Your task to perform on an android device: What's on my calendar tomorrow? Image 0: 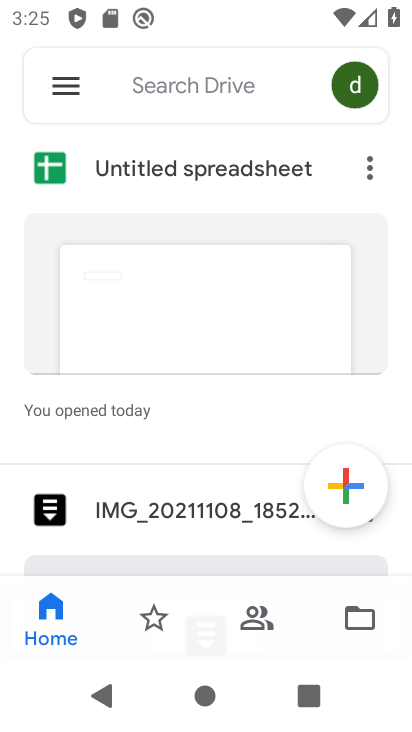
Step 0: click (250, 469)
Your task to perform on an android device: What's on my calendar tomorrow? Image 1: 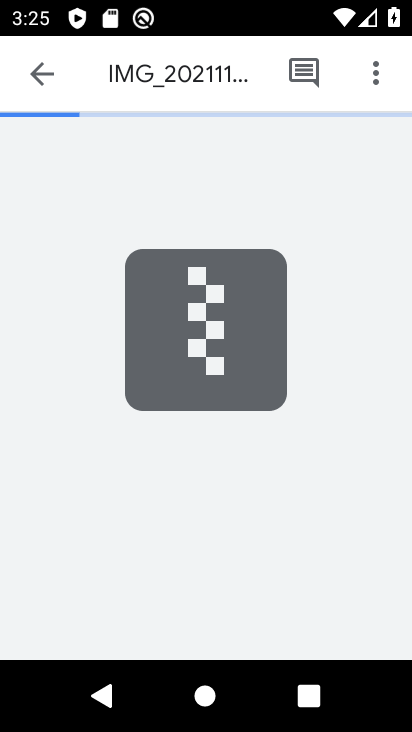
Step 1: press home button
Your task to perform on an android device: What's on my calendar tomorrow? Image 2: 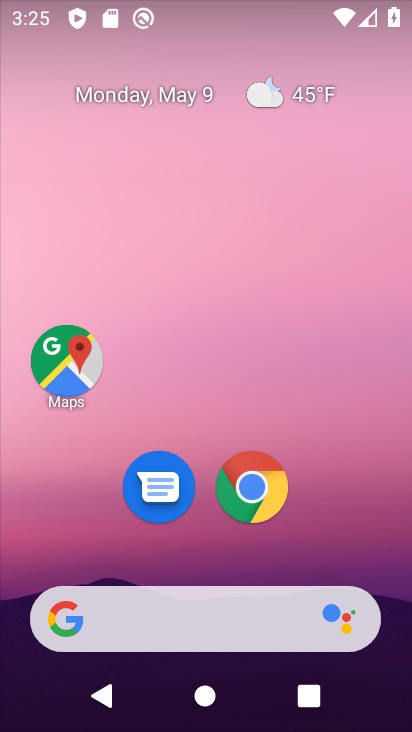
Step 2: drag from (207, 595) to (203, 232)
Your task to perform on an android device: What's on my calendar tomorrow? Image 3: 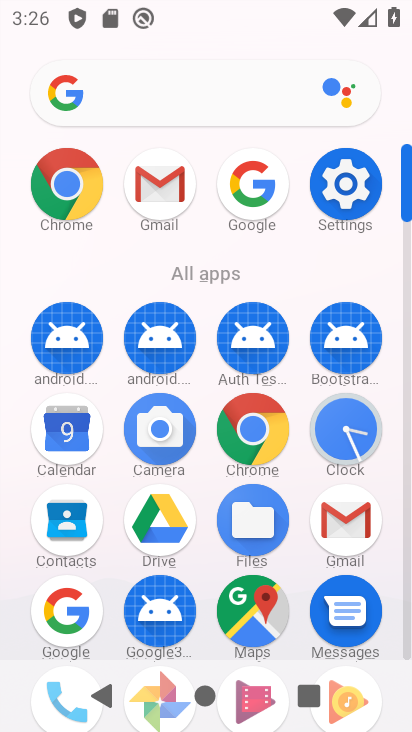
Step 3: click (53, 437)
Your task to perform on an android device: What's on my calendar tomorrow? Image 4: 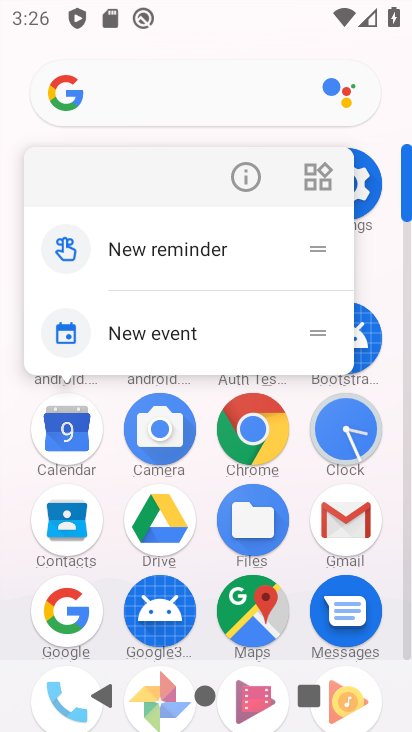
Step 4: click (52, 436)
Your task to perform on an android device: What's on my calendar tomorrow? Image 5: 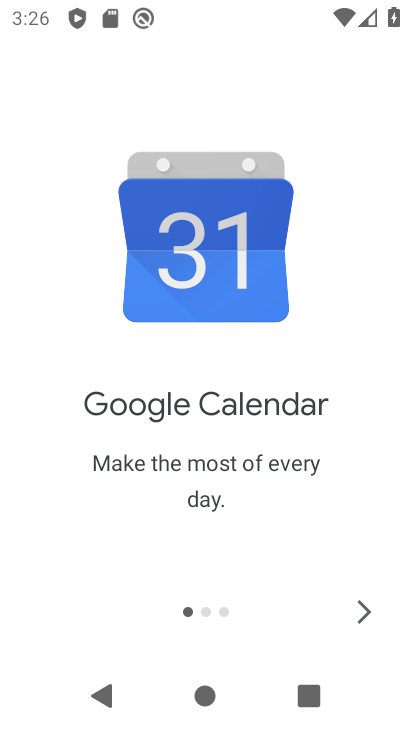
Step 5: click (358, 602)
Your task to perform on an android device: What's on my calendar tomorrow? Image 6: 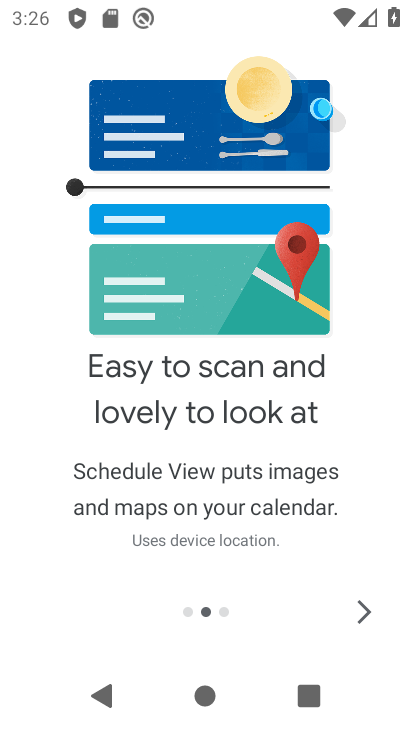
Step 6: click (359, 616)
Your task to perform on an android device: What's on my calendar tomorrow? Image 7: 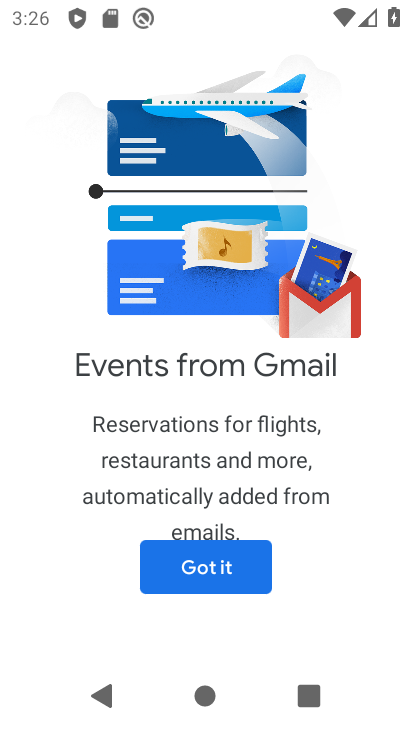
Step 7: click (202, 567)
Your task to perform on an android device: What's on my calendar tomorrow? Image 8: 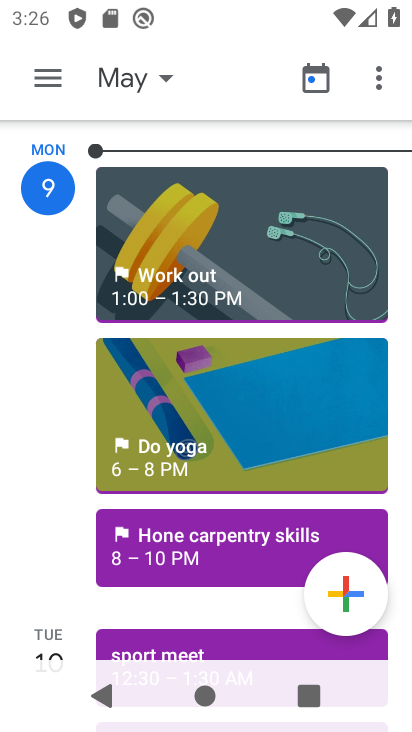
Step 8: drag from (241, 639) to (197, 318)
Your task to perform on an android device: What's on my calendar tomorrow? Image 9: 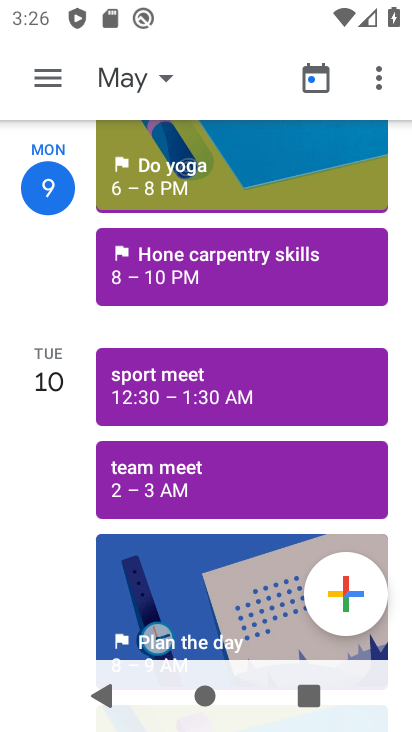
Step 9: drag from (197, 130) to (212, 473)
Your task to perform on an android device: What's on my calendar tomorrow? Image 10: 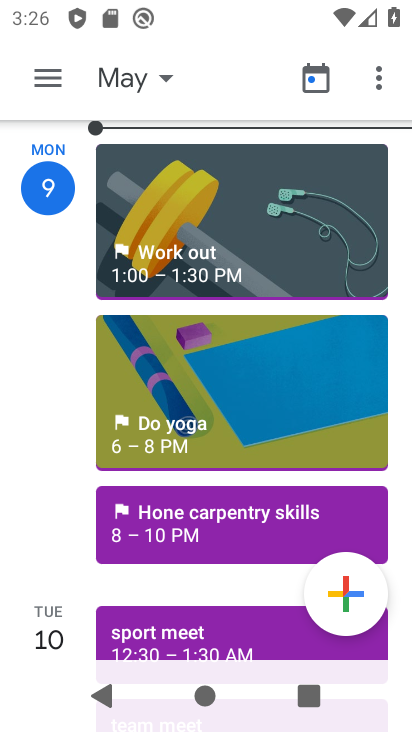
Step 10: drag from (210, 648) to (199, 237)
Your task to perform on an android device: What's on my calendar tomorrow? Image 11: 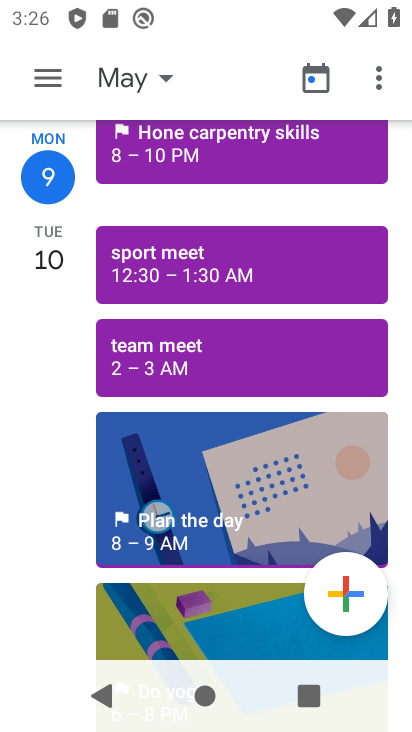
Step 11: click (179, 268)
Your task to perform on an android device: What's on my calendar tomorrow? Image 12: 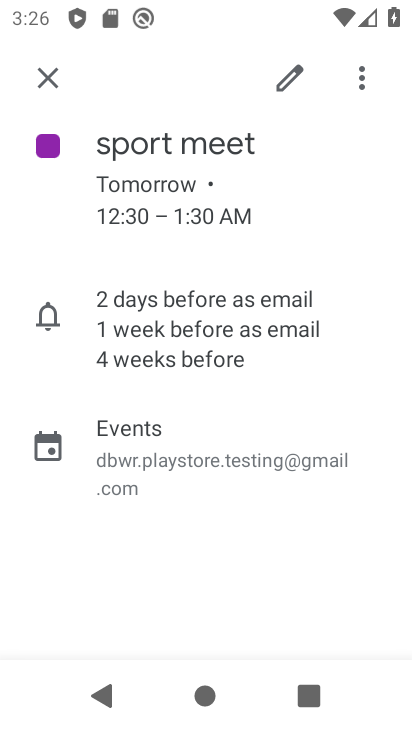
Step 12: task complete